Your task to perform on an android device: toggle location history Image 0: 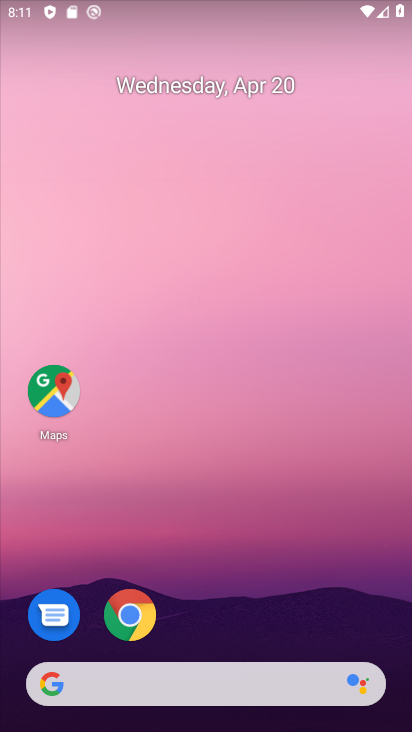
Step 0: drag from (232, 629) to (286, 115)
Your task to perform on an android device: toggle location history Image 1: 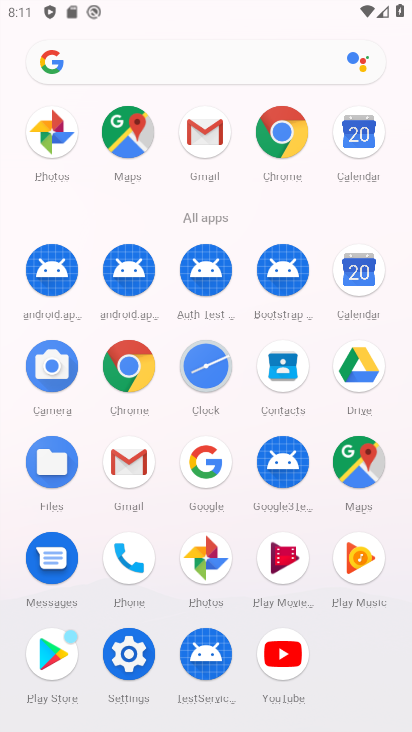
Step 1: click (134, 672)
Your task to perform on an android device: toggle location history Image 2: 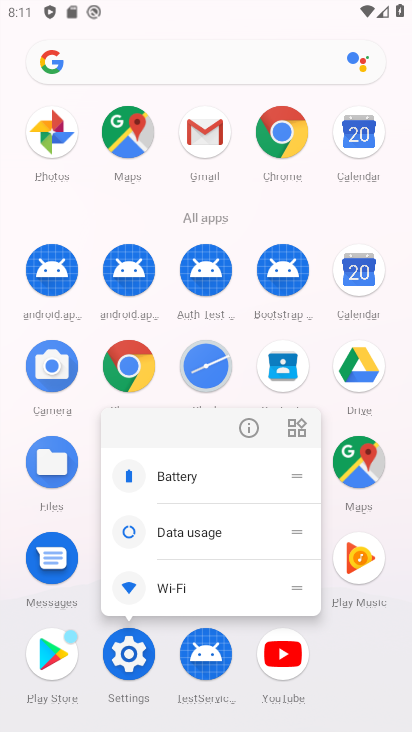
Step 2: click (134, 662)
Your task to perform on an android device: toggle location history Image 3: 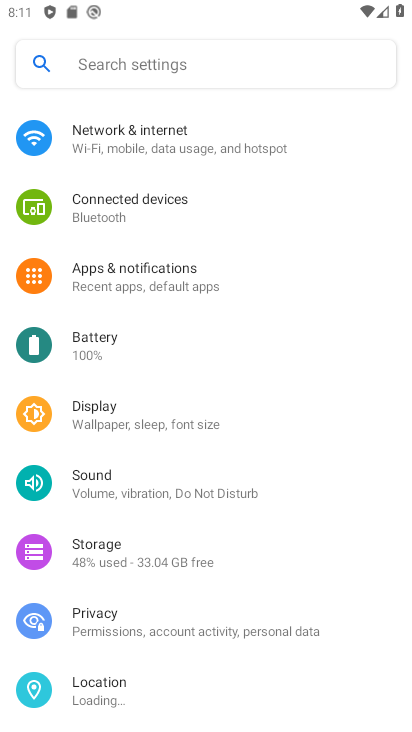
Step 3: drag from (136, 286) to (132, 623)
Your task to perform on an android device: toggle location history Image 4: 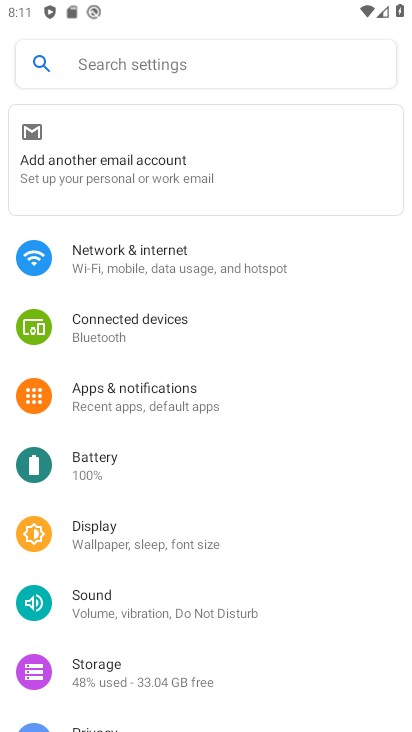
Step 4: drag from (277, 573) to (276, 223)
Your task to perform on an android device: toggle location history Image 5: 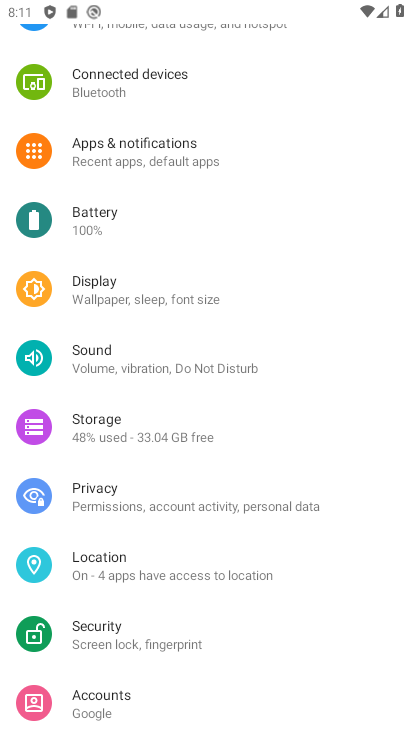
Step 5: click (159, 569)
Your task to perform on an android device: toggle location history Image 6: 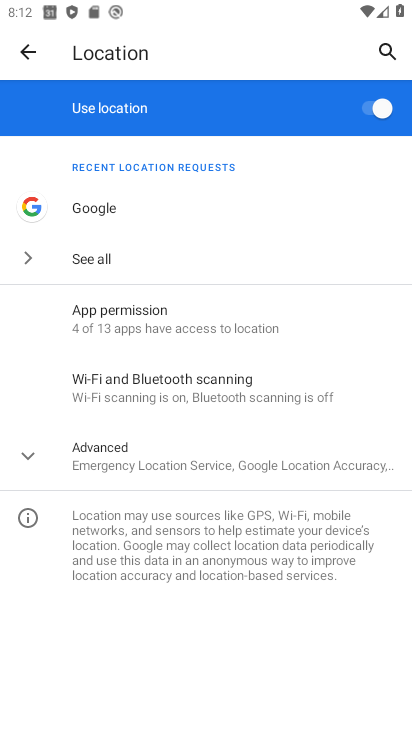
Step 6: click (109, 452)
Your task to perform on an android device: toggle location history Image 7: 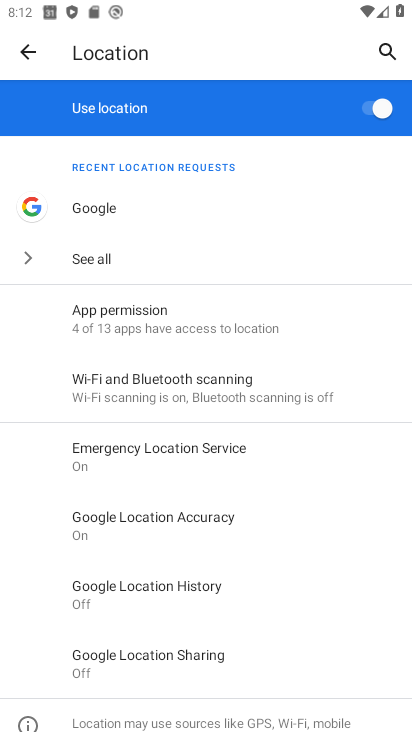
Step 7: click (216, 595)
Your task to perform on an android device: toggle location history Image 8: 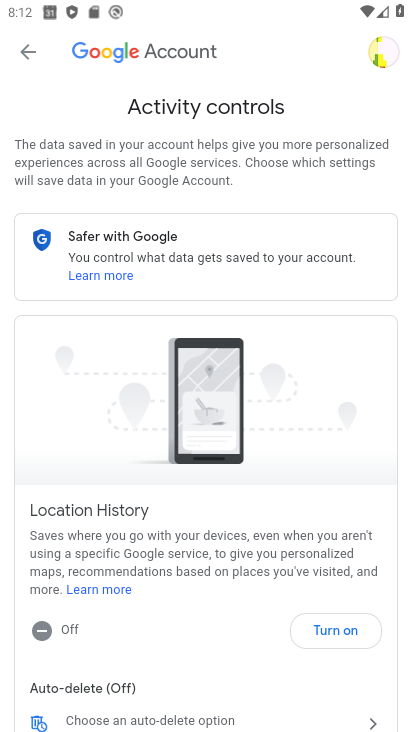
Step 8: click (349, 633)
Your task to perform on an android device: toggle location history Image 9: 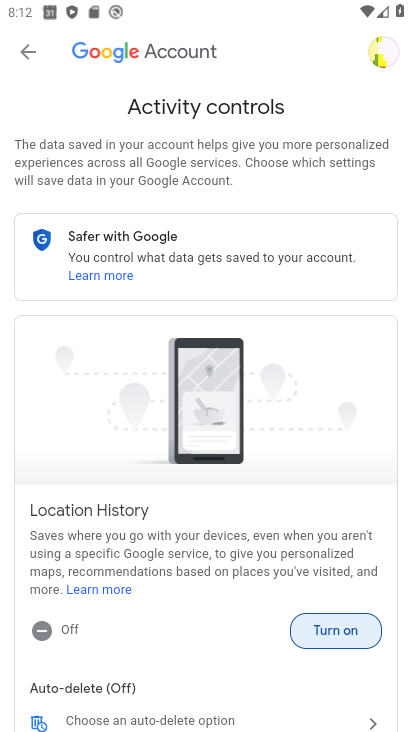
Step 9: click (327, 627)
Your task to perform on an android device: toggle location history Image 10: 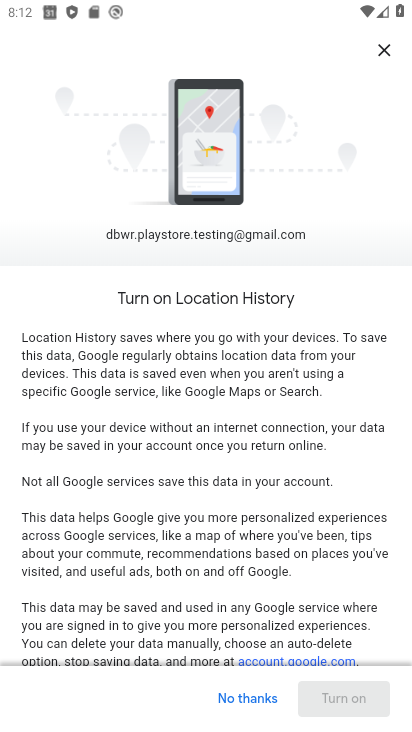
Step 10: drag from (335, 602) to (357, 3)
Your task to perform on an android device: toggle location history Image 11: 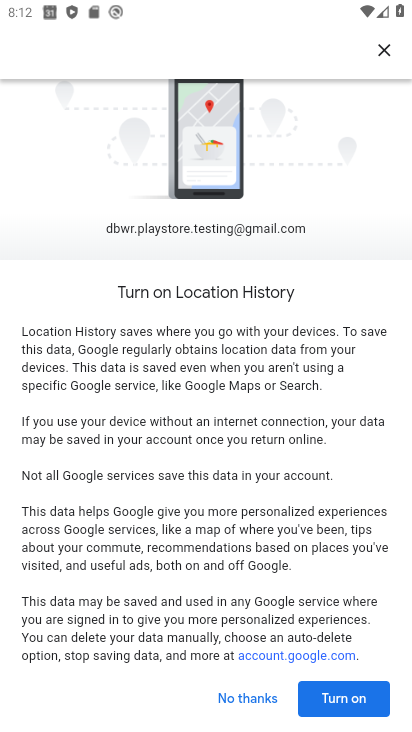
Step 11: click (360, 704)
Your task to perform on an android device: toggle location history Image 12: 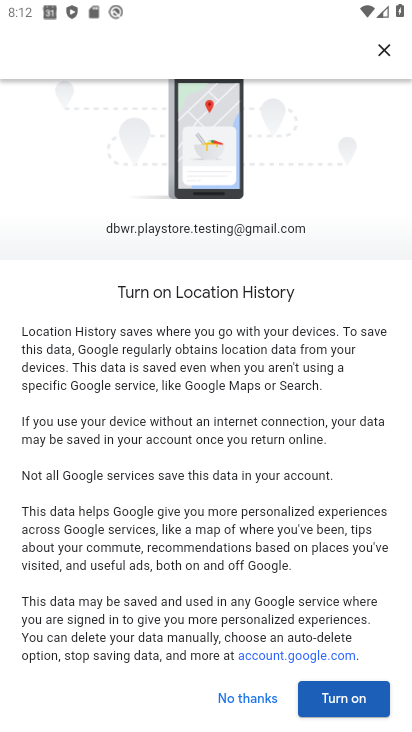
Step 12: click (360, 704)
Your task to perform on an android device: toggle location history Image 13: 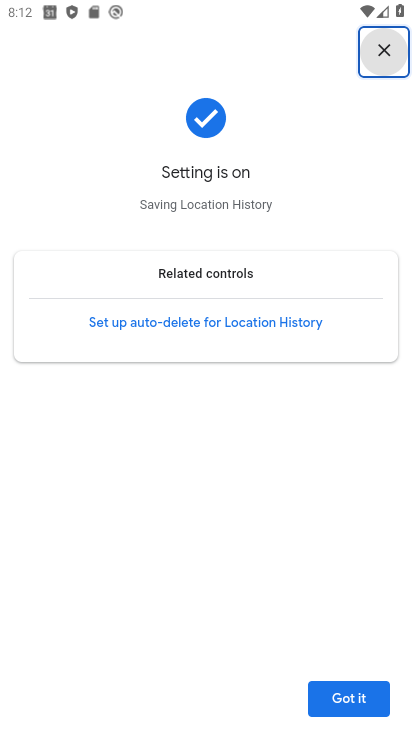
Step 13: click (329, 696)
Your task to perform on an android device: toggle location history Image 14: 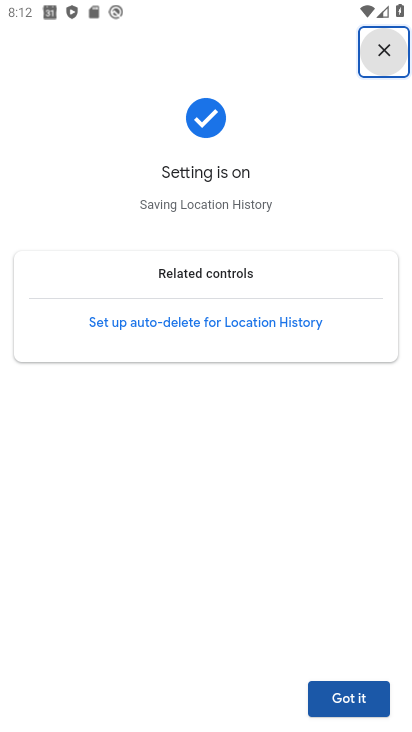
Step 14: task complete